Your task to perform on an android device: install app "Google Find My Device" Image 0: 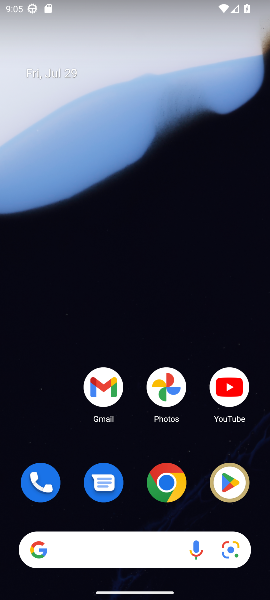
Step 0: drag from (144, 598) to (143, 551)
Your task to perform on an android device: install app "Google Find My Device" Image 1: 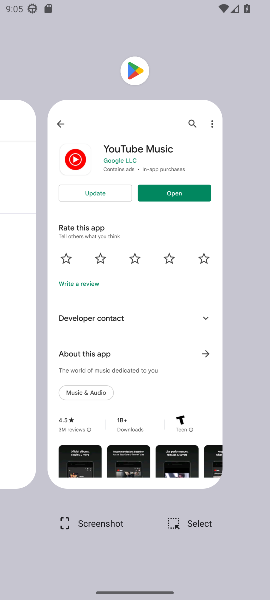
Step 1: click (148, 250)
Your task to perform on an android device: install app "Google Find My Device" Image 2: 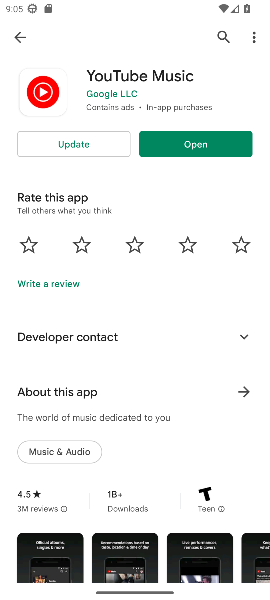
Step 2: click (222, 32)
Your task to perform on an android device: install app "Google Find My Device" Image 3: 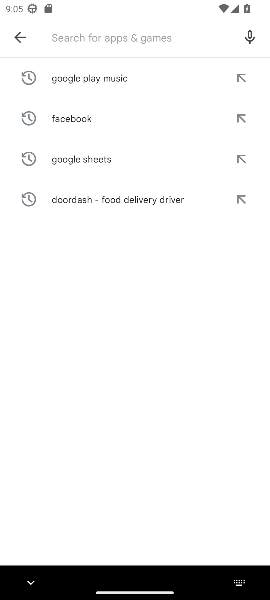
Step 3: type "Google Find My Device"
Your task to perform on an android device: install app "Google Find My Device" Image 4: 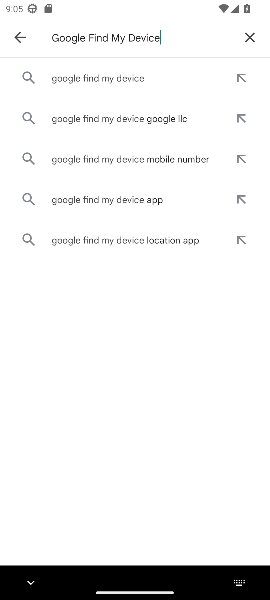
Step 4: click (99, 73)
Your task to perform on an android device: install app "Google Find My Device" Image 5: 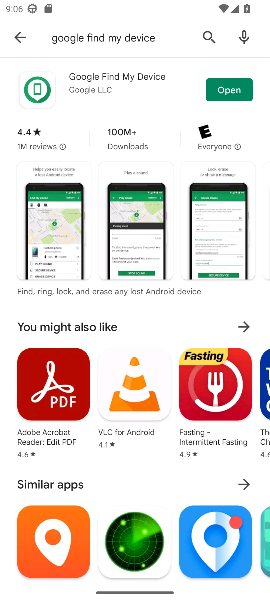
Step 5: task complete